Your task to perform on an android device: toggle airplane mode Image 0: 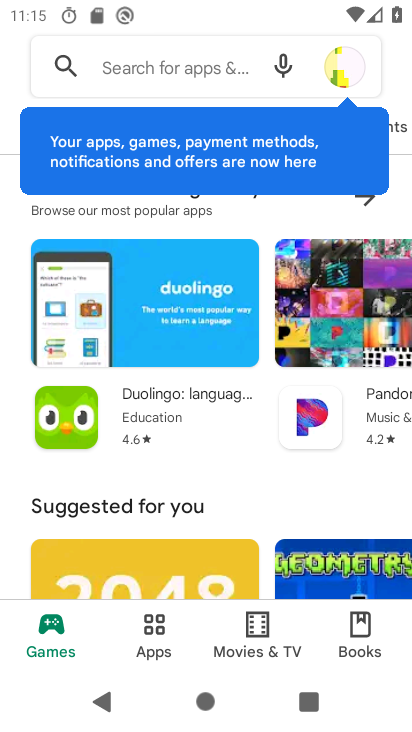
Step 0: press home button
Your task to perform on an android device: toggle airplane mode Image 1: 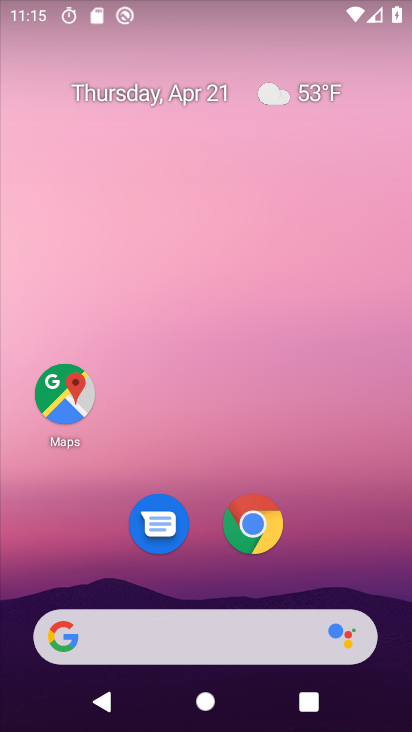
Step 1: drag from (340, 512) to (339, 128)
Your task to perform on an android device: toggle airplane mode Image 2: 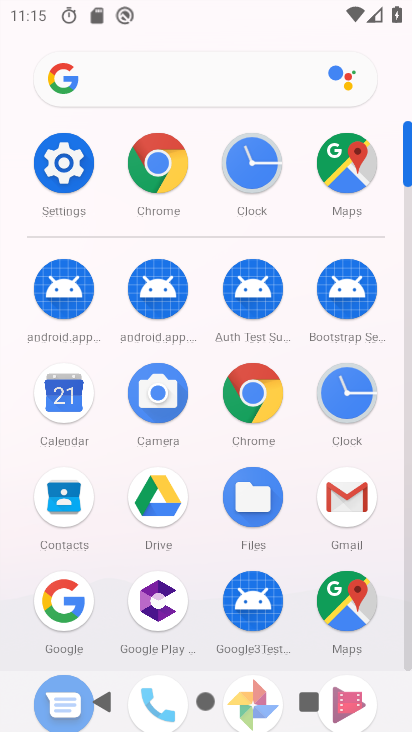
Step 2: click (74, 164)
Your task to perform on an android device: toggle airplane mode Image 3: 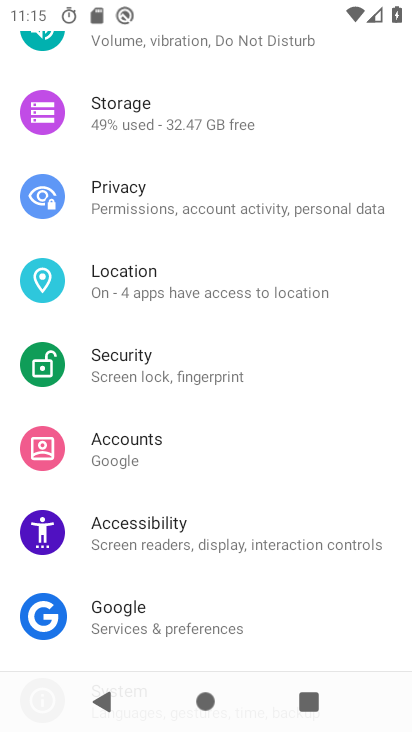
Step 3: drag from (246, 102) to (224, 610)
Your task to perform on an android device: toggle airplane mode Image 4: 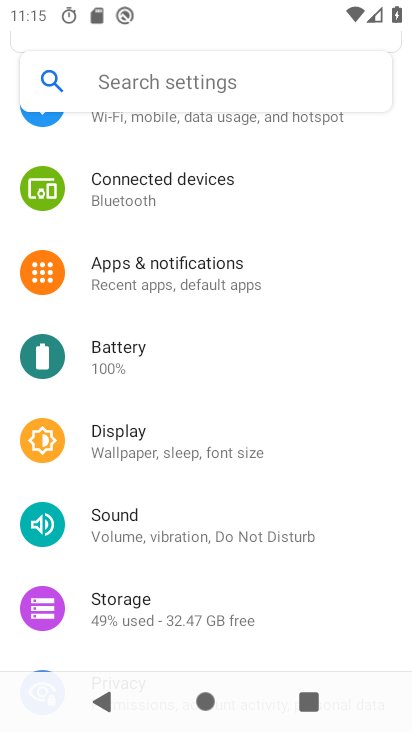
Step 4: drag from (269, 160) to (265, 451)
Your task to perform on an android device: toggle airplane mode Image 5: 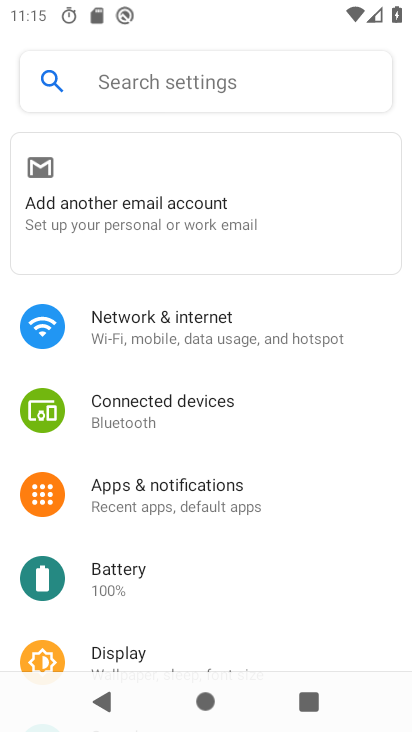
Step 5: click (227, 331)
Your task to perform on an android device: toggle airplane mode Image 6: 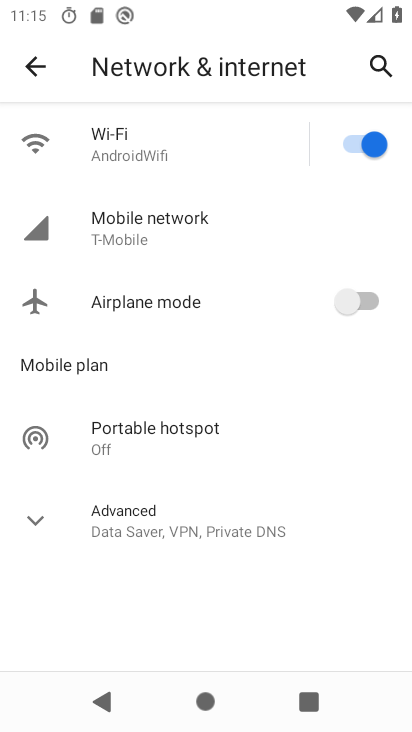
Step 6: click (353, 290)
Your task to perform on an android device: toggle airplane mode Image 7: 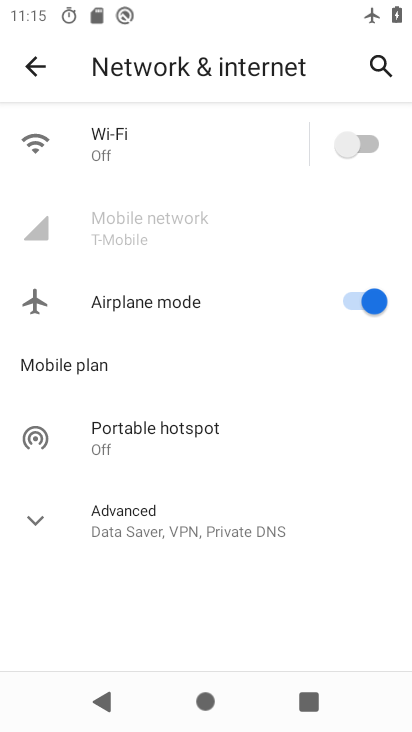
Step 7: task complete